Your task to perform on an android device: Go to eBay Image 0: 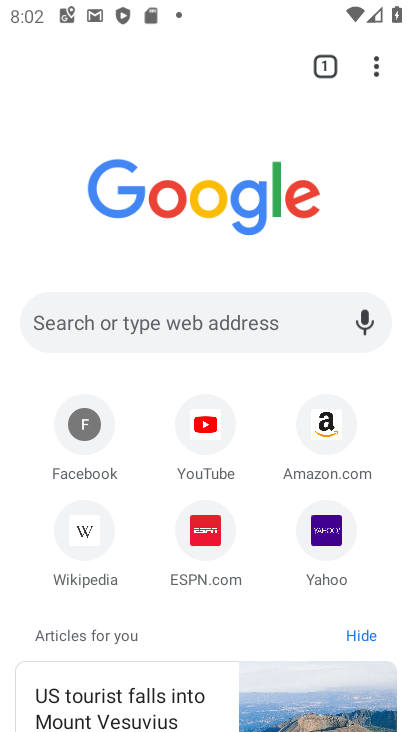
Step 0: press home button
Your task to perform on an android device: Go to eBay Image 1: 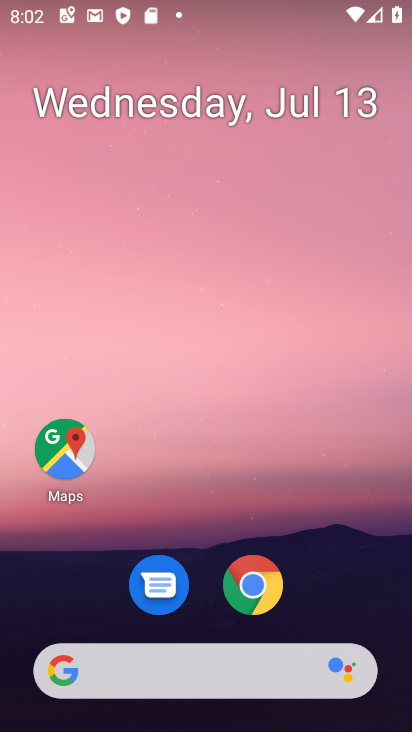
Step 1: click (192, 682)
Your task to perform on an android device: Go to eBay Image 2: 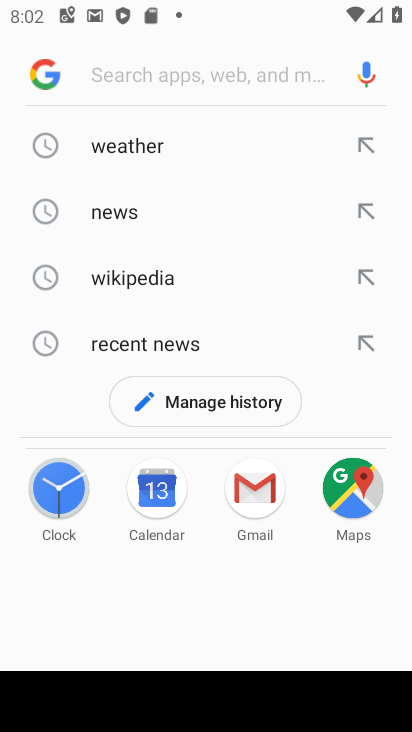
Step 2: type "ebay"
Your task to perform on an android device: Go to eBay Image 3: 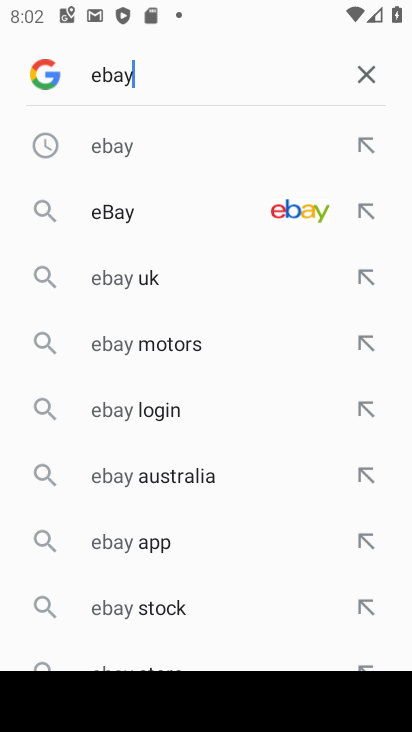
Step 3: click (297, 212)
Your task to perform on an android device: Go to eBay Image 4: 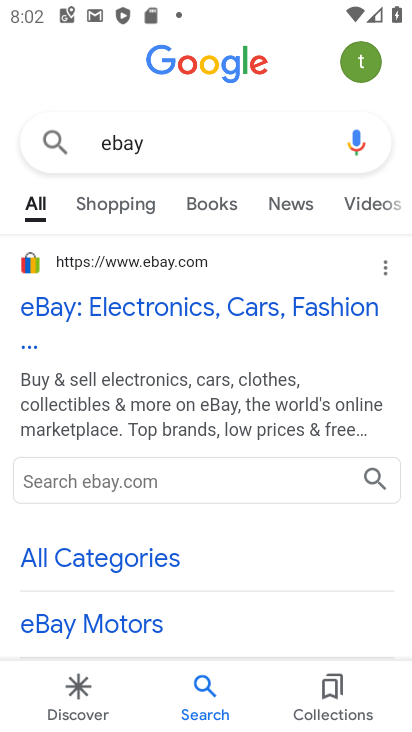
Step 4: click (58, 304)
Your task to perform on an android device: Go to eBay Image 5: 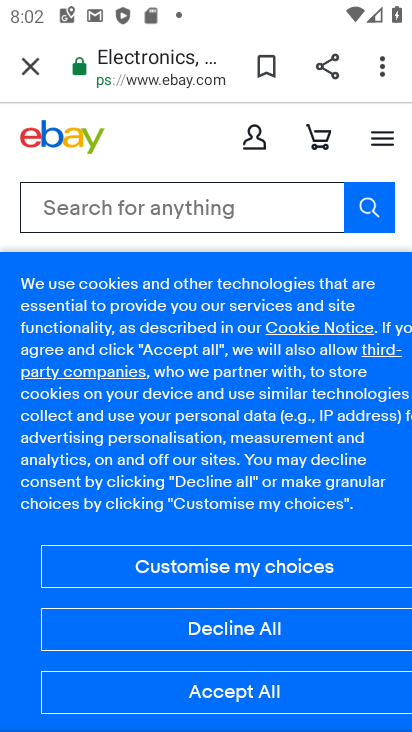
Step 5: task complete